Your task to perform on an android device: Open ESPN.com Image 0: 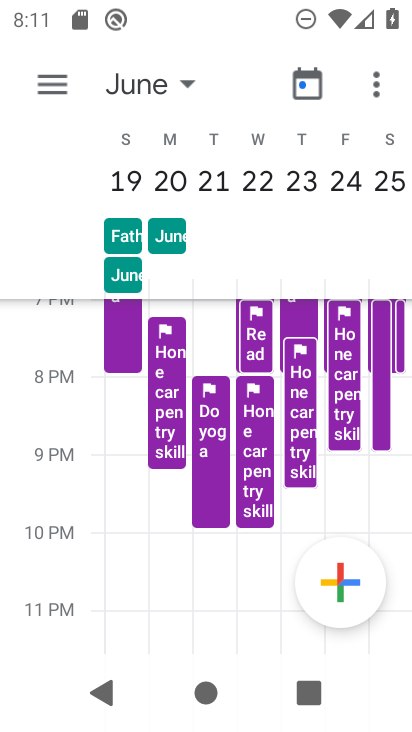
Step 0: press home button
Your task to perform on an android device: Open ESPN.com Image 1: 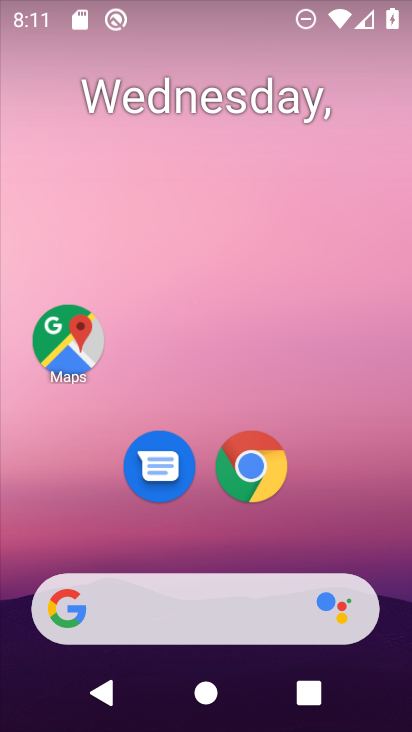
Step 1: click (256, 483)
Your task to perform on an android device: Open ESPN.com Image 2: 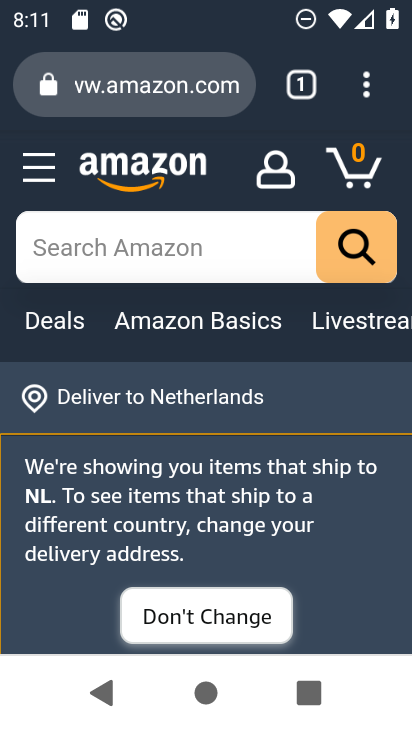
Step 2: click (187, 86)
Your task to perform on an android device: Open ESPN.com Image 3: 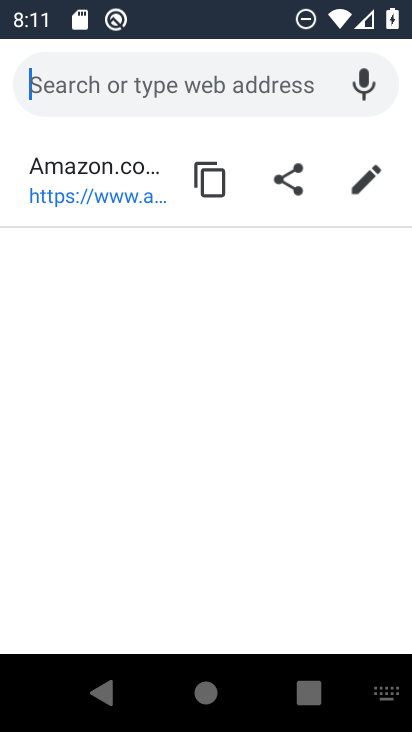
Step 3: type "ESPN.com"
Your task to perform on an android device: Open ESPN.com Image 4: 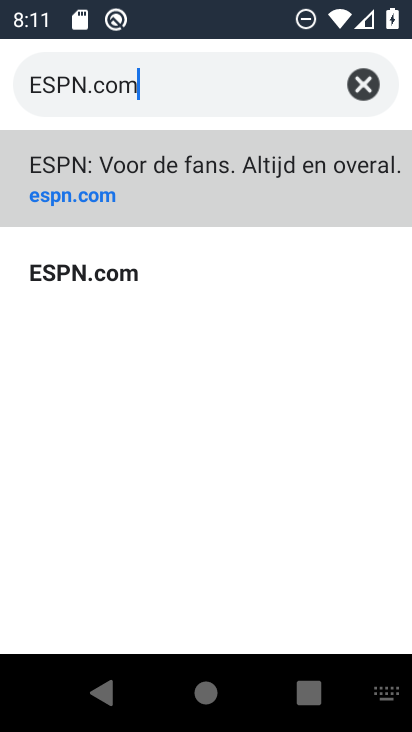
Step 4: click (122, 277)
Your task to perform on an android device: Open ESPN.com Image 5: 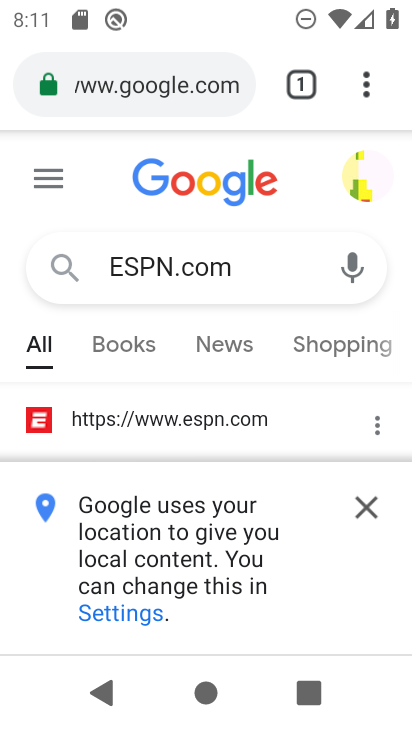
Step 5: click (369, 504)
Your task to perform on an android device: Open ESPN.com Image 6: 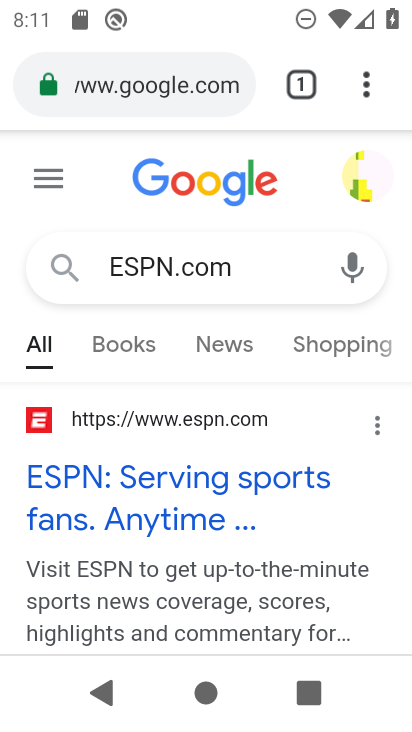
Step 6: task complete